Your task to perform on an android device: Go to Wikipedia Image 0: 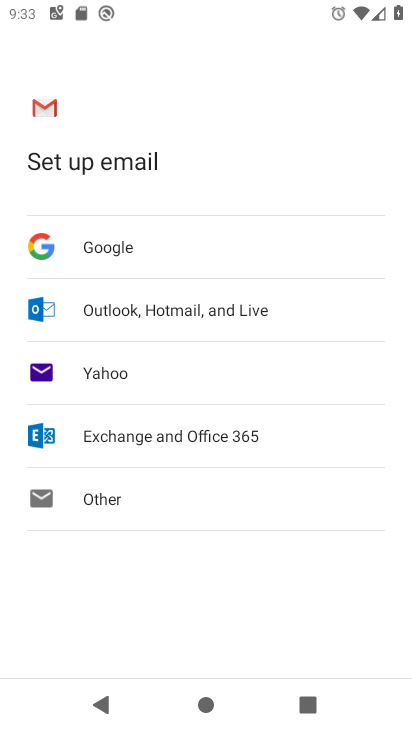
Step 0: press home button
Your task to perform on an android device: Go to Wikipedia Image 1: 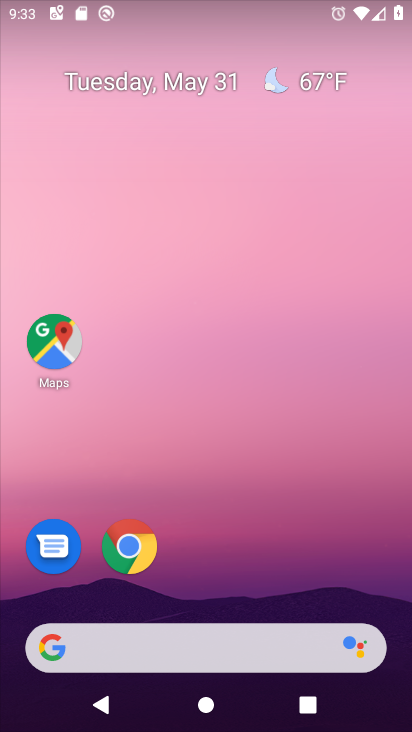
Step 1: click (137, 550)
Your task to perform on an android device: Go to Wikipedia Image 2: 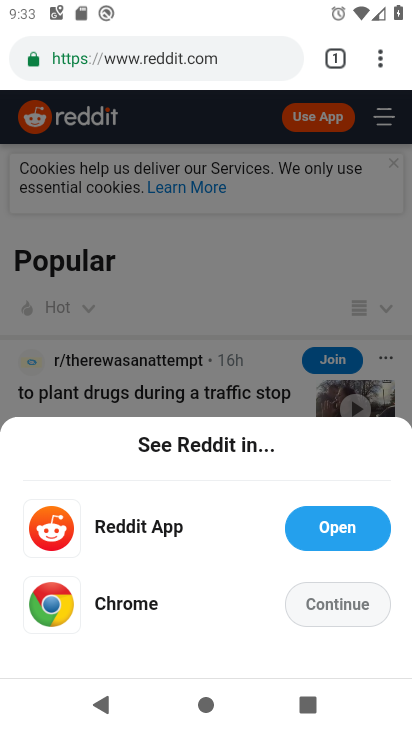
Step 2: click (179, 62)
Your task to perform on an android device: Go to Wikipedia Image 3: 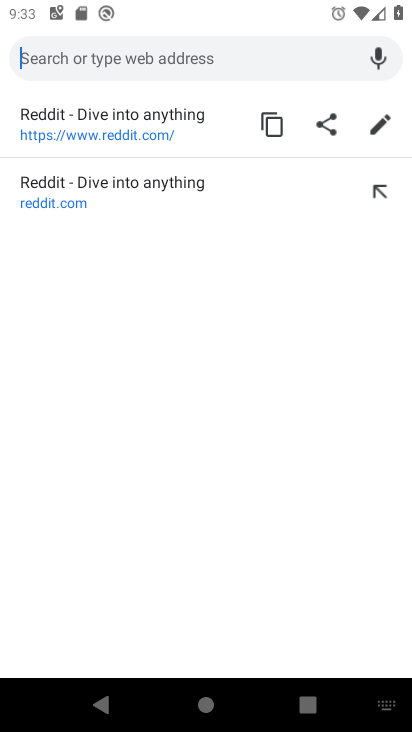
Step 3: type "wikipedia"
Your task to perform on an android device: Go to Wikipedia Image 4: 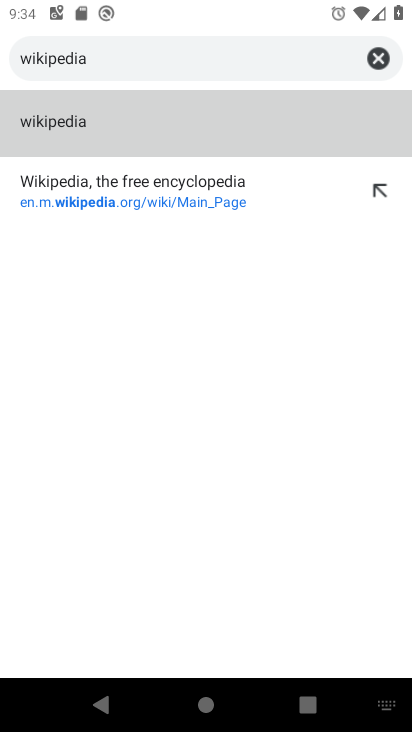
Step 4: click (150, 201)
Your task to perform on an android device: Go to Wikipedia Image 5: 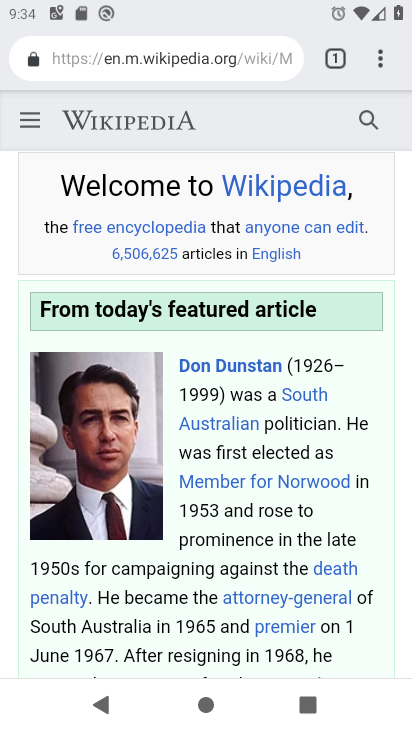
Step 5: task complete